Your task to perform on an android device: Open the calendar and show me this week's events Image 0: 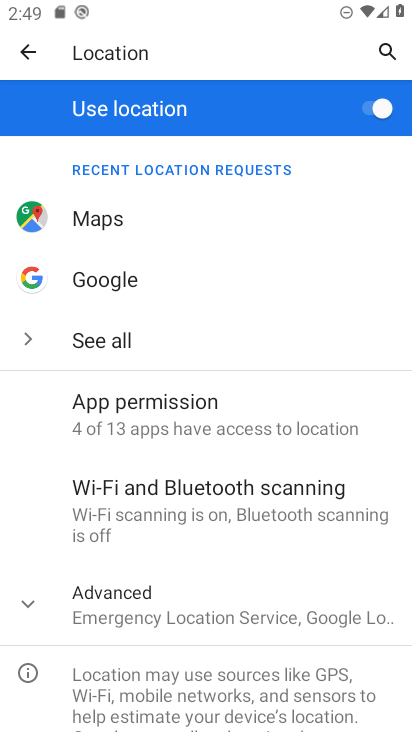
Step 0: press home button
Your task to perform on an android device: Open the calendar and show me this week's events Image 1: 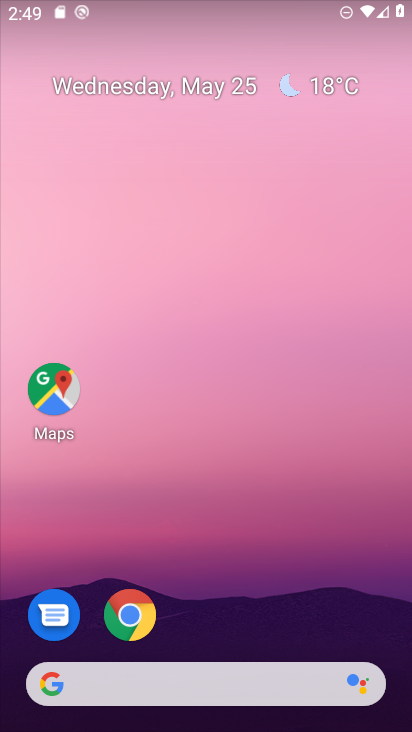
Step 1: drag from (268, 561) to (291, 47)
Your task to perform on an android device: Open the calendar and show me this week's events Image 2: 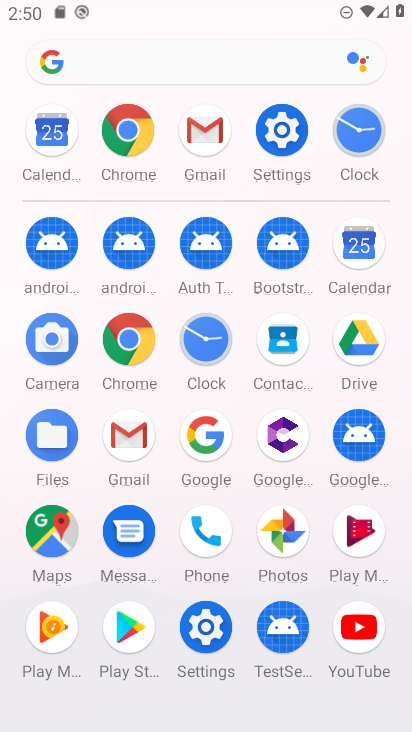
Step 2: click (356, 248)
Your task to perform on an android device: Open the calendar and show me this week's events Image 3: 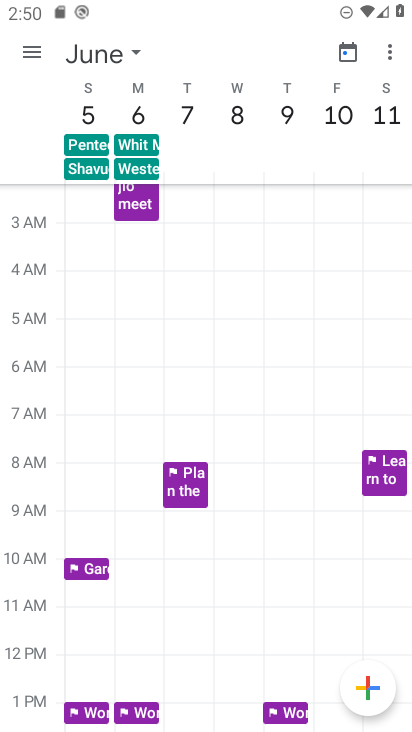
Step 3: task complete